Your task to perform on an android device: Go to network settings Image 0: 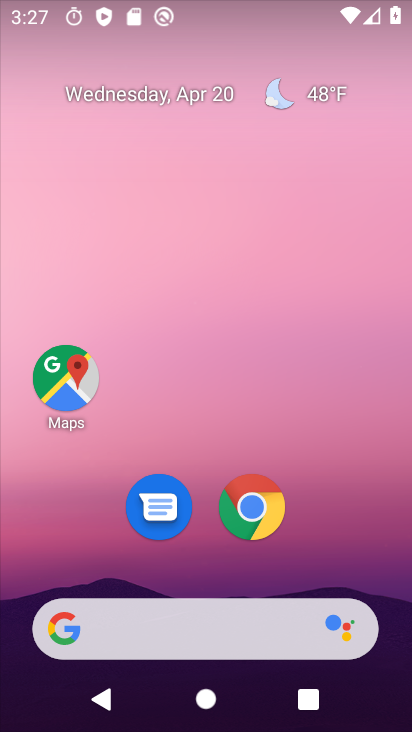
Step 0: drag from (223, 606) to (230, 267)
Your task to perform on an android device: Go to network settings Image 1: 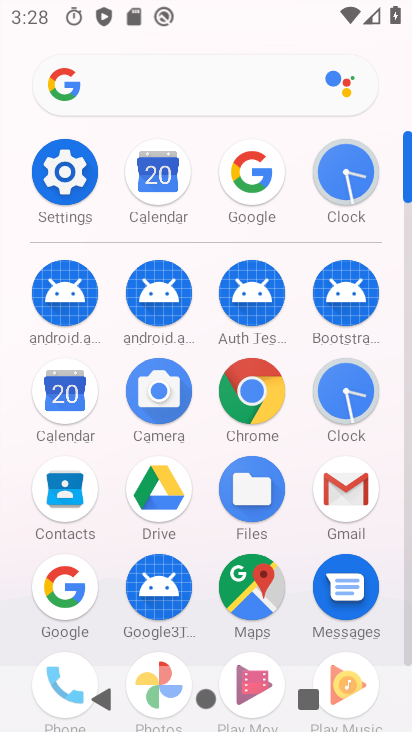
Step 1: click (77, 178)
Your task to perform on an android device: Go to network settings Image 2: 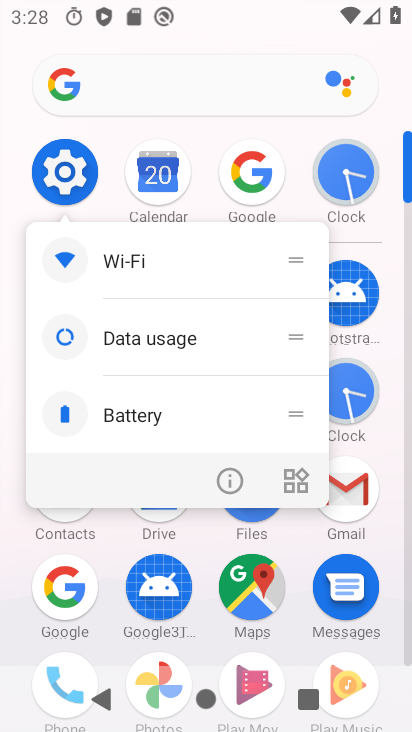
Step 2: click (59, 194)
Your task to perform on an android device: Go to network settings Image 3: 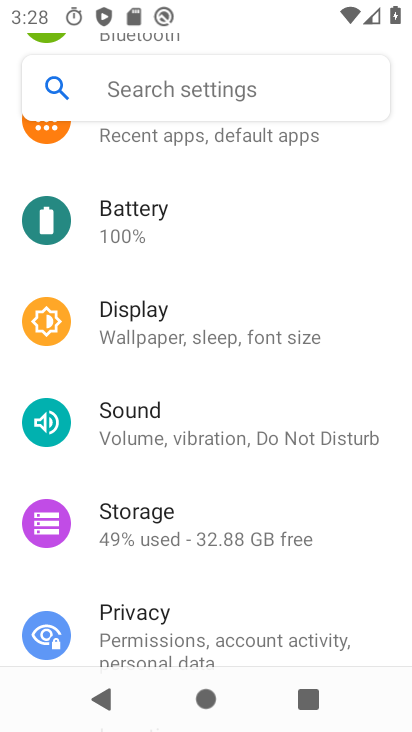
Step 3: drag from (150, 163) to (168, 467)
Your task to perform on an android device: Go to network settings Image 4: 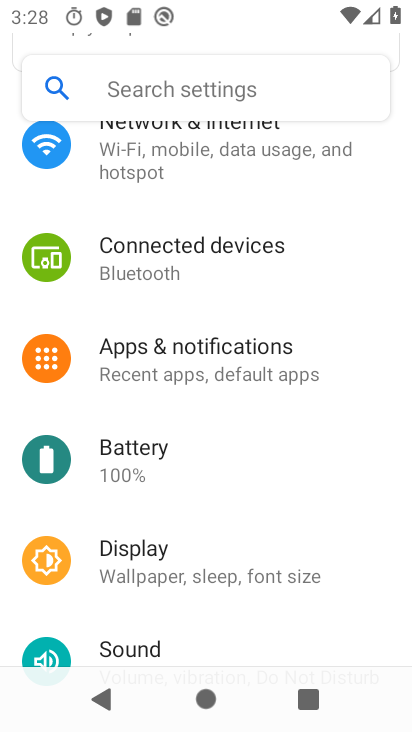
Step 4: click (171, 155)
Your task to perform on an android device: Go to network settings Image 5: 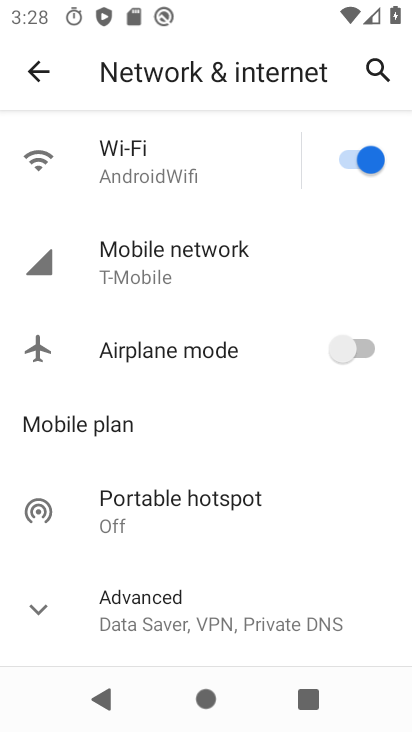
Step 5: task complete